Your task to perform on an android device: Open maps Image 0: 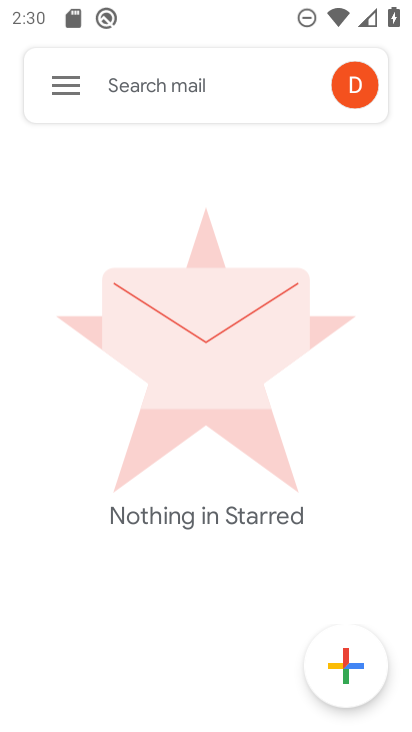
Step 0: press home button
Your task to perform on an android device: Open maps Image 1: 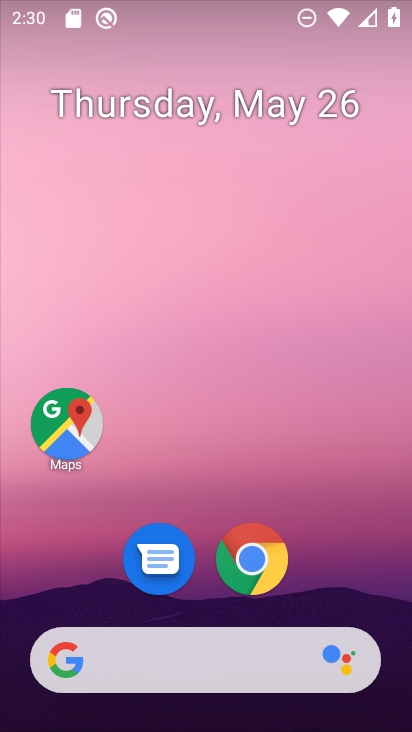
Step 1: click (58, 398)
Your task to perform on an android device: Open maps Image 2: 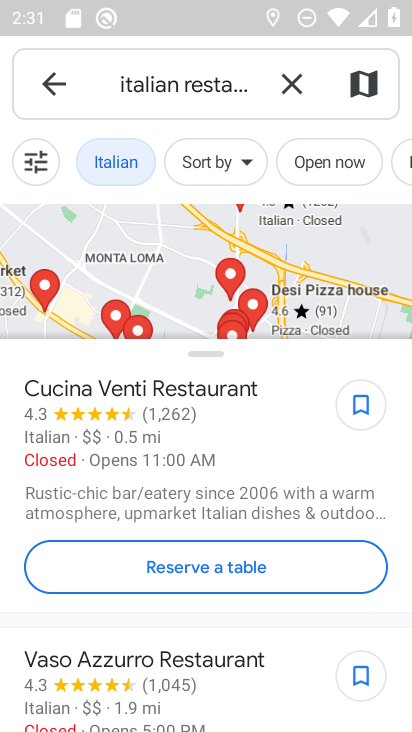
Step 2: task complete